Your task to perform on an android device: Open Wikipedia Image 0: 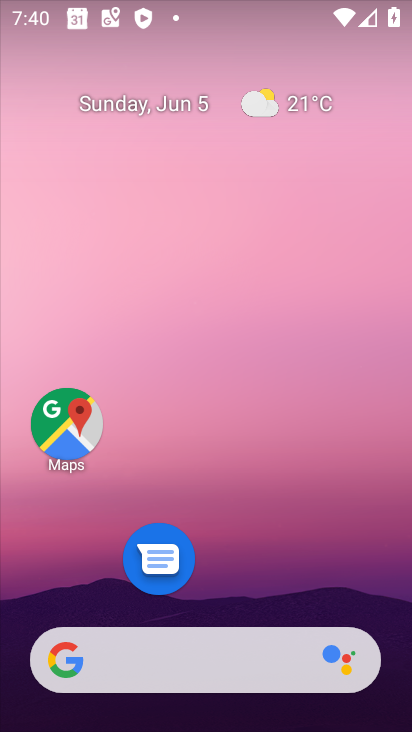
Step 0: drag from (233, 612) to (145, 60)
Your task to perform on an android device: Open Wikipedia Image 1: 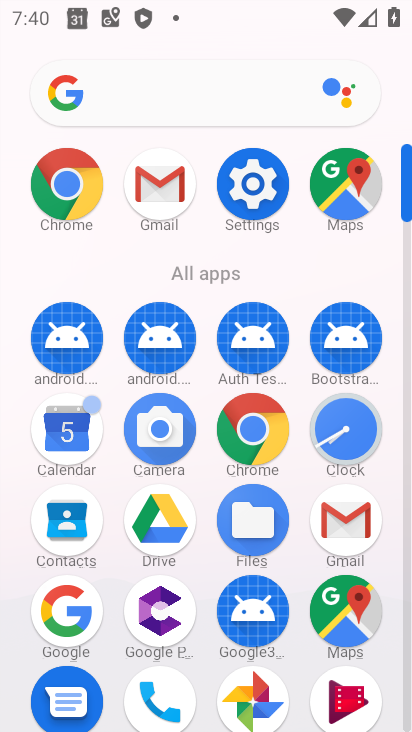
Step 1: click (261, 428)
Your task to perform on an android device: Open Wikipedia Image 2: 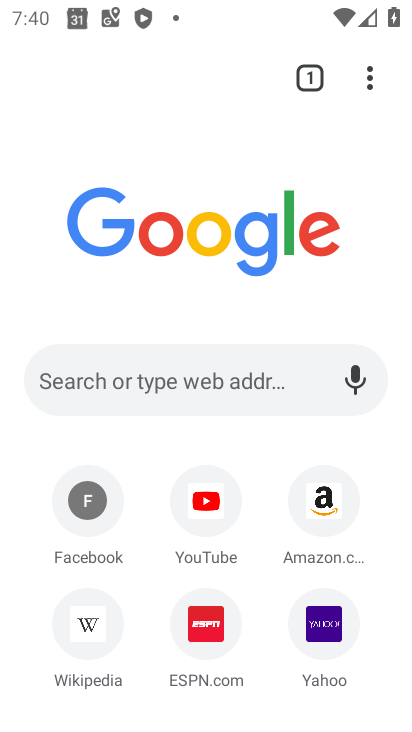
Step 2: click (99, 608)
Your task to perform on an android device: Open Wikipedia Image 3: 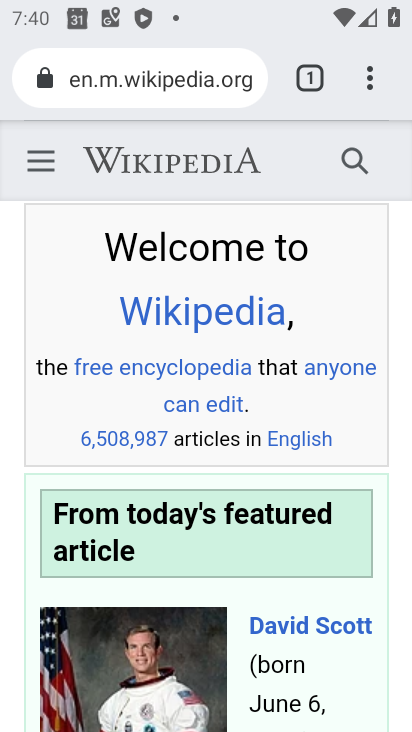
Step 3: task complete